Your task to perform on an android device: Open wifi settings Image 0: 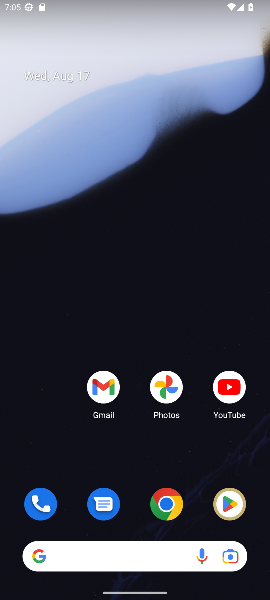
Step 0: press home button
Your task to perform on an android device: Open wifi settings Image 1: 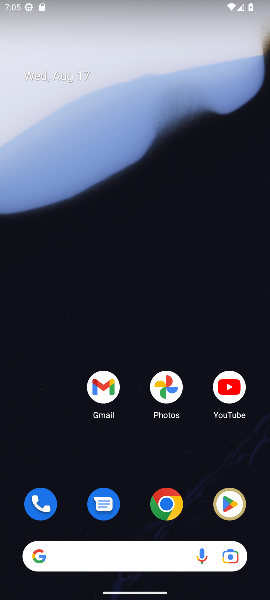
Step 1: drag from (156, 462) to (268, 423)
Your task to perform on an android device: Open wifi settings Image 2: 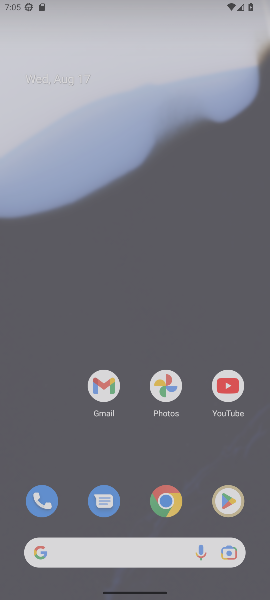
Step 2: click (165, 441)
Your task to perform on an android device: Open wifi settings Image 3: 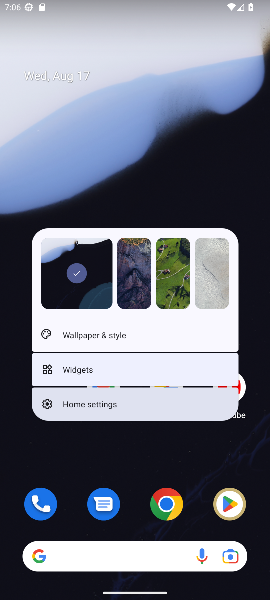
Step 3: drag from (130, 344) to (192, 11)
Your task to perform on an android device: Open wifi settings Image 4: 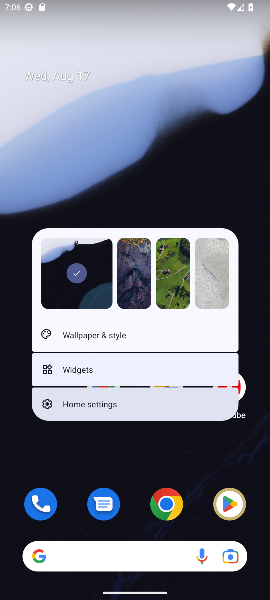
Step 4: drag from (142, 469) to (125, 14)
Your task to perform on an android device: Open wifi settings Image 5: 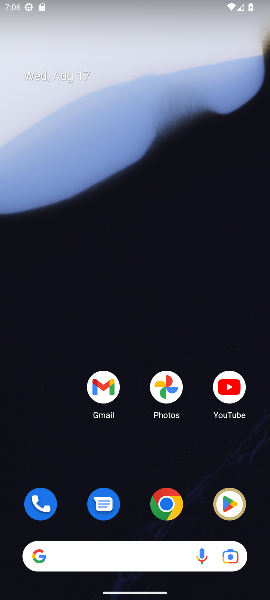
Step 5: drag from (143, 419) to (127, 0)
Your task to perform on an android device: Open wifi settings Image 6: 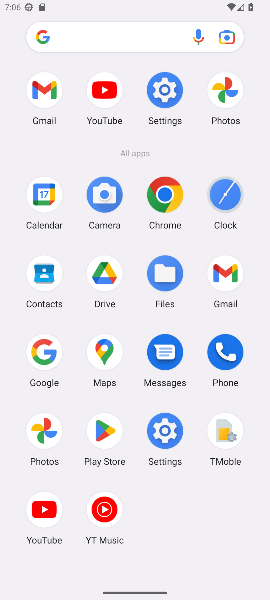
Step 6: click (174, 448)
Your task to perform on an android device: Open wifi settings Image 7: 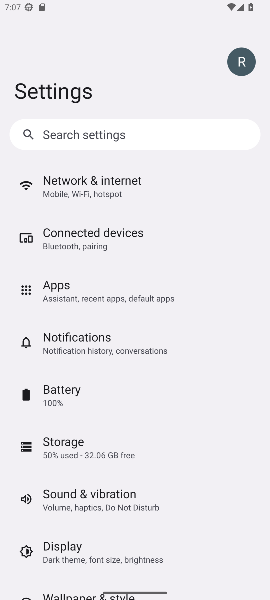
Step 7: click (146, 186)
Your task to perform on an android device: Open wifi settings Image 8: 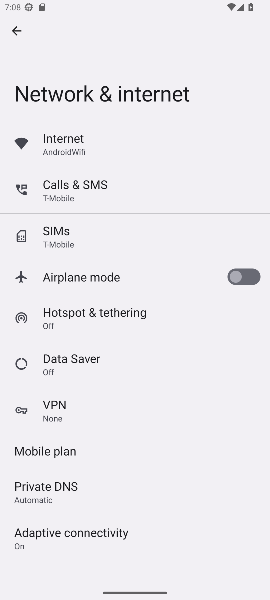
Step 8: click (116, 144)
Your task to perform on an android device: Open wifi settings Image 9: 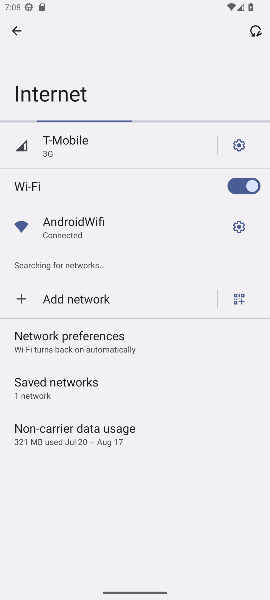
Step 9: click (235, 227)
Your task to perform on an android device: Open wifi settings Image 10: 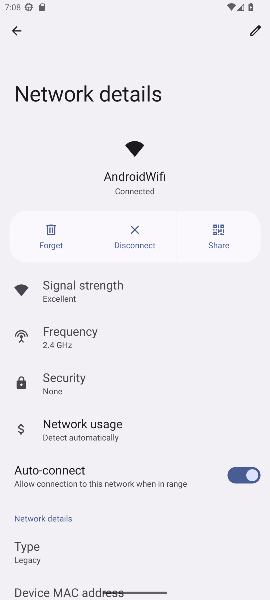
Step 10: task complete